Your task to perform on an android device: change your default location settings in chrome Image 0: 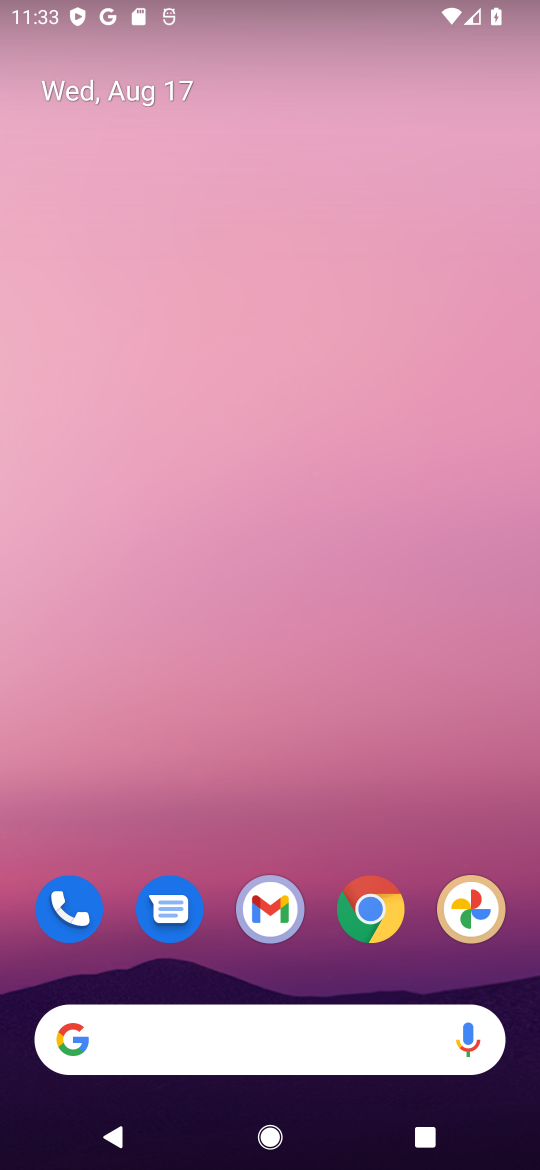
Step 0: click (368, 901)
Your task to perform on an android device: change your default location settings in chrome Image 1: 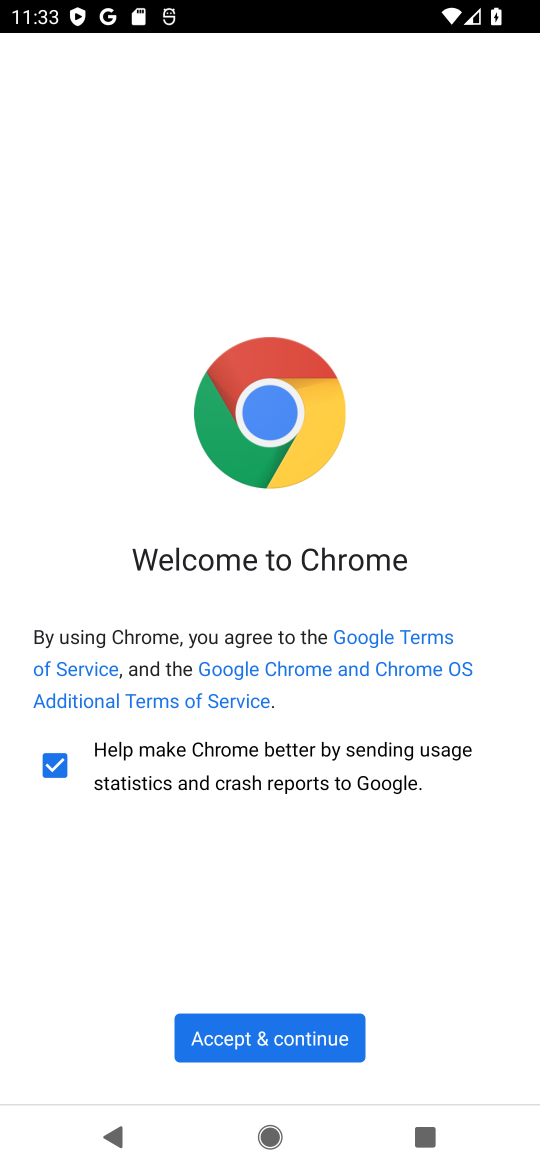
Step 1: click (253, 1029)
Your task to perform on an android device: change your default location settings in chrome Image 2: 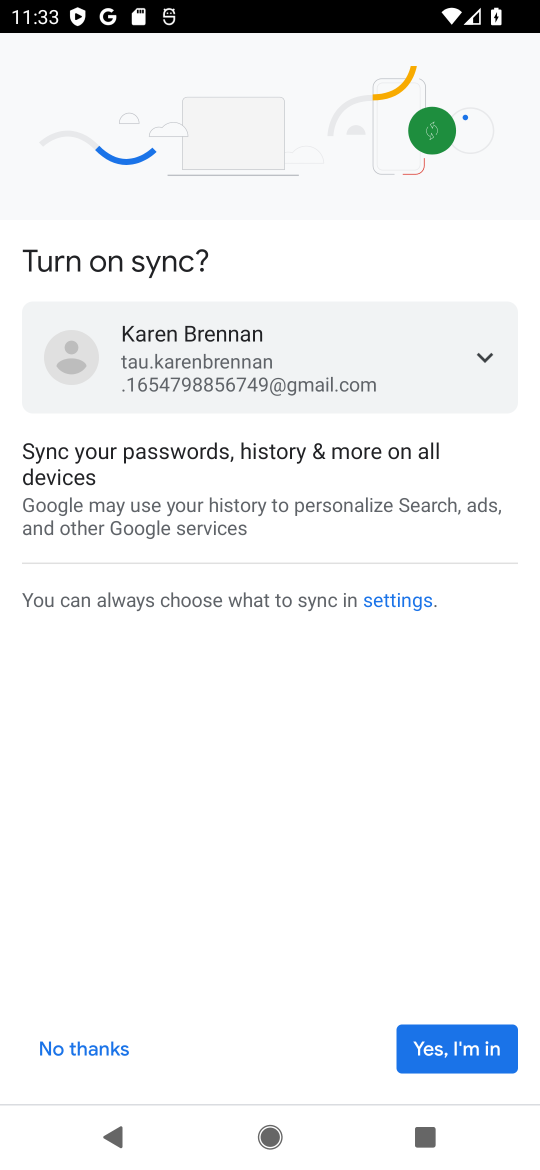
Step 2: click (451, 1036)
Your task to perform on an android device: change your default location settings in chrome Image 3: 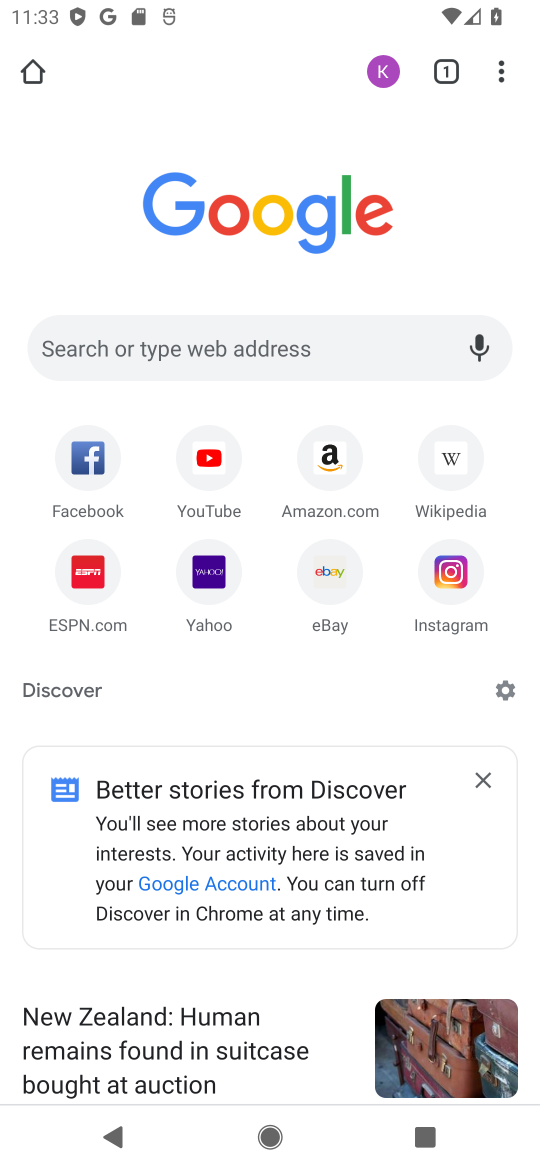
Step 3: click (498, 66)
Your task to perform on an android device: change your default location settings in chrome Image 4: 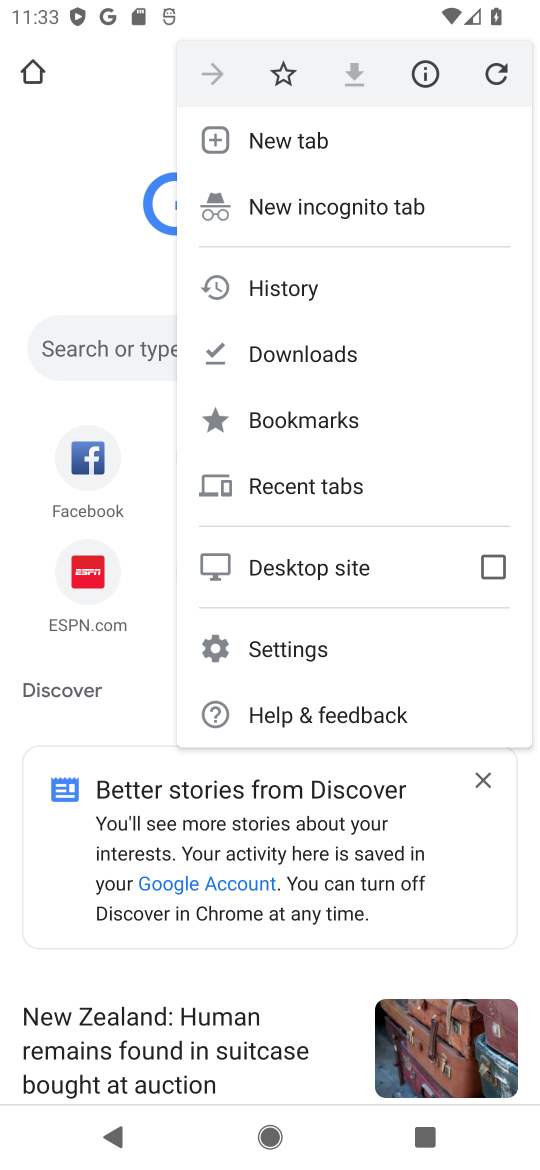
Step 4: click (300, 644)
Your task to perform on an android device: change your default location settings in chrome Image 5: 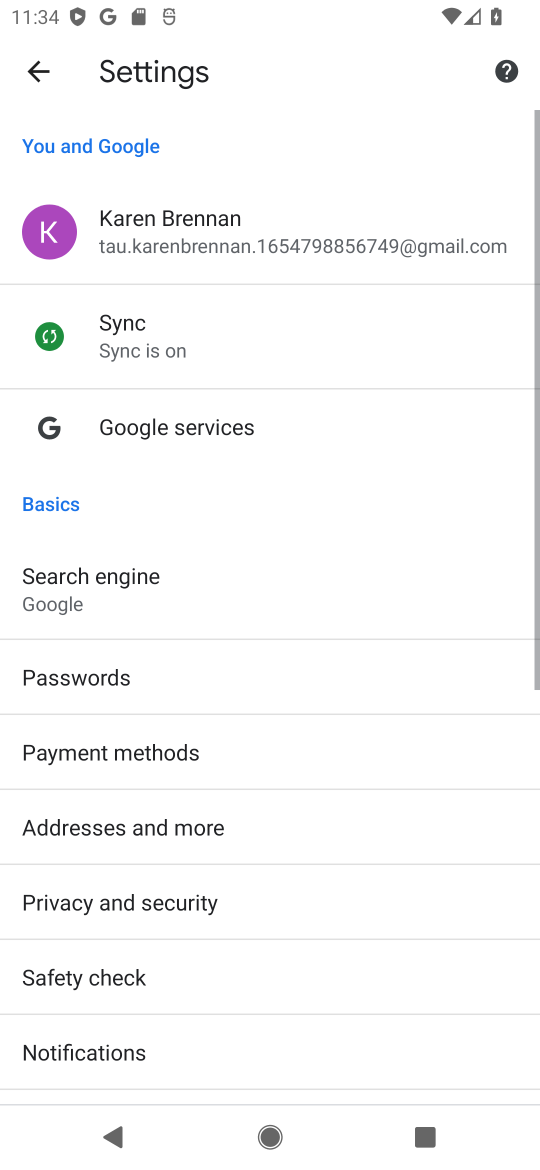
Step 5: drag from (321, 995) to (303, 544)
Your task to perform on an android device: change your default location settings in chrome Image 6: 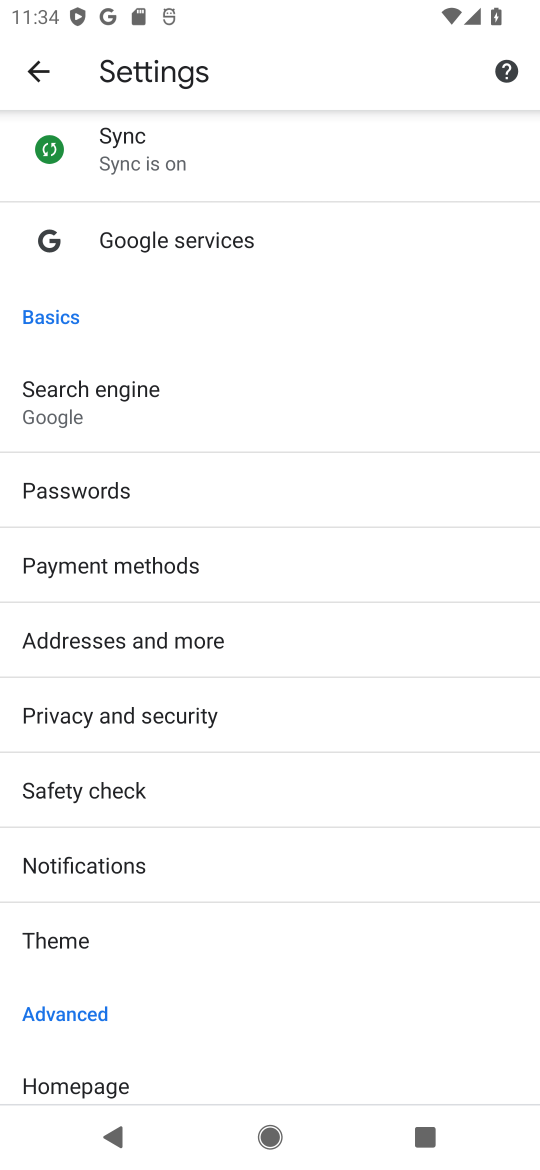
Step 6: drag from (209, 1023) to (192, 562)
Your task to perform on an android device: change your default location settings in chrome Image 7: 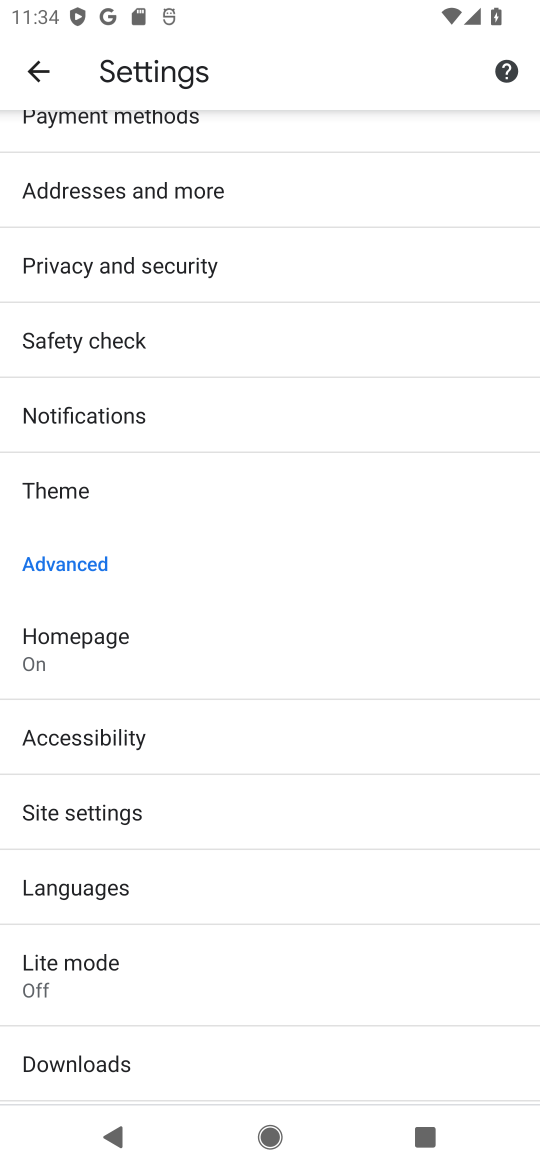
Step 7: click (75, 810)
Your task to perform on an android device: change your default location settings in chrome Image 8: 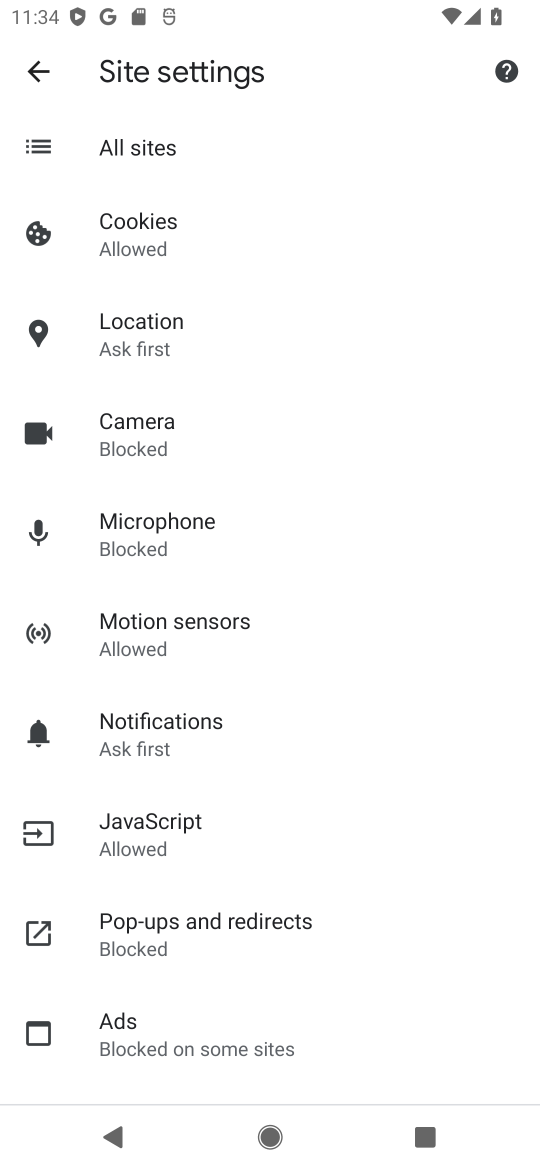
Step 8: click (147, 316)
Your task to perform on an android device: change your default location settings in chrome Image 9: 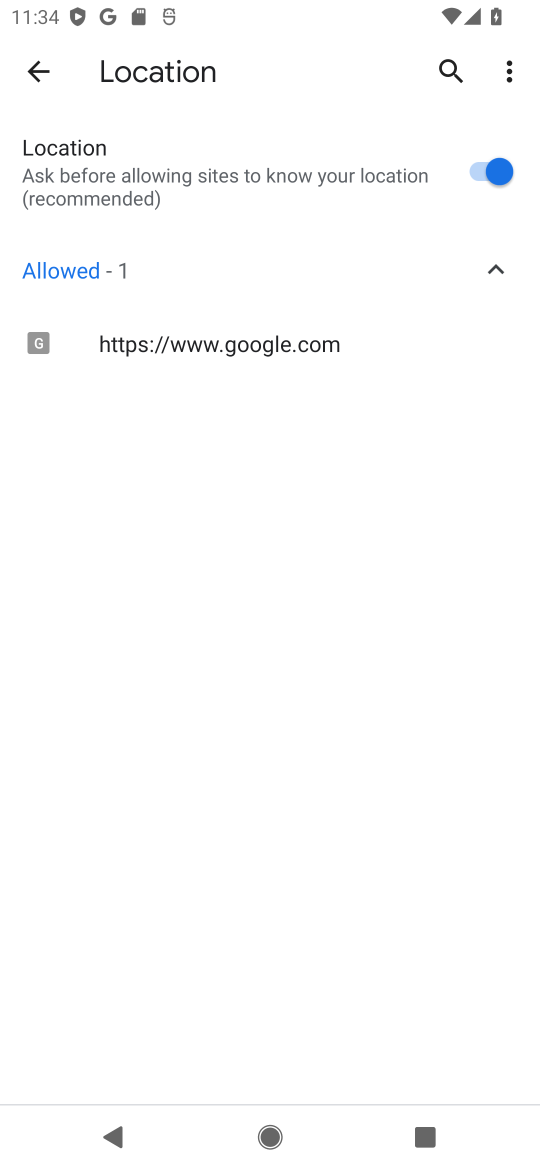
Step 9: click (475, 171)
Your task to perform on an android device: change your default location settings in chrome Image 10: 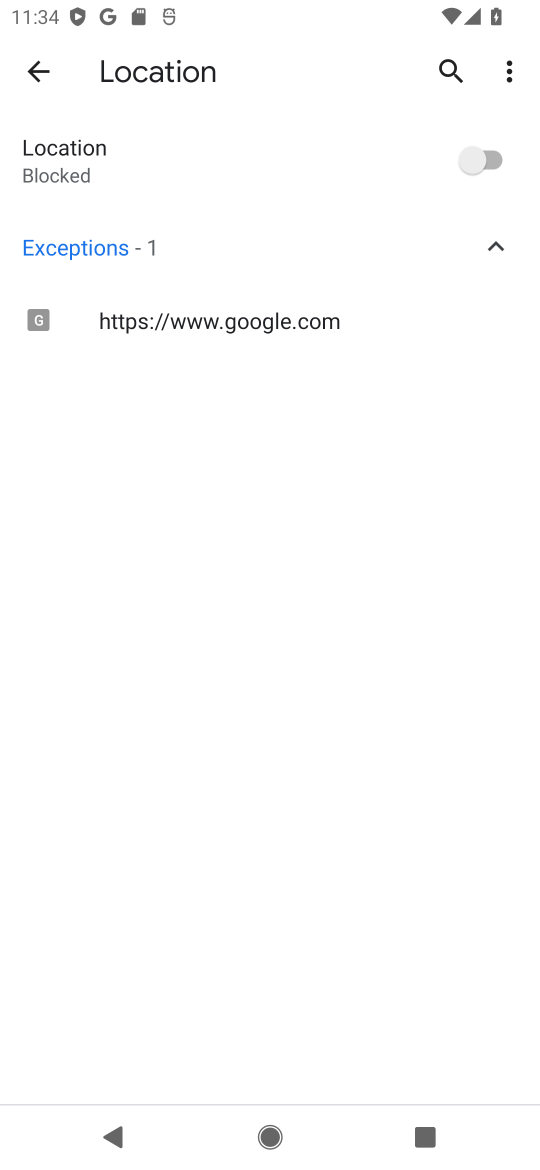
Step 10: task complete